Your task to perform on an android device: Open Google Chrome and click the shortcut for Amazon.com Image 0: 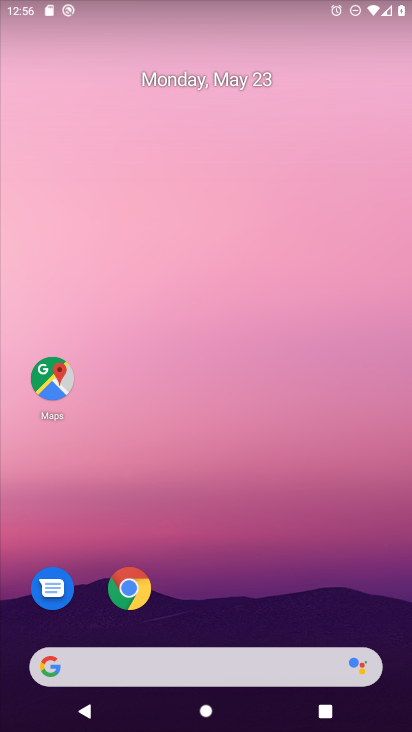
Step 0: drag from (244, 690) to (250, 136)
Your task to perform on an android device: Open Google Chrome and click the shortcut for Amazon.com Image 1: 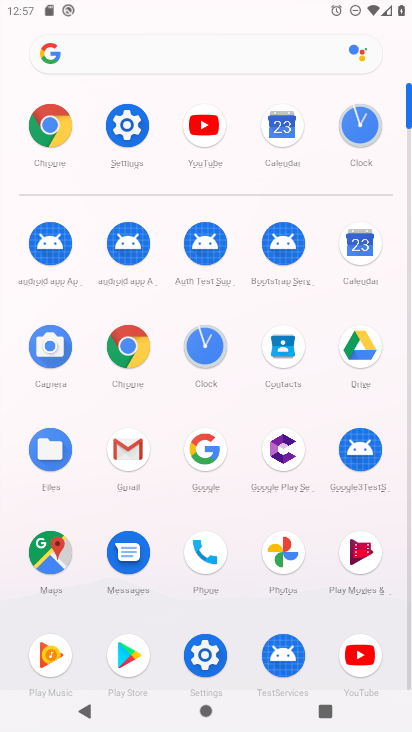
Step 1: click (137, 340)
Your task to perform on an android device: Open Google Chrome and click the shortcut for Amazon.com Image 2: 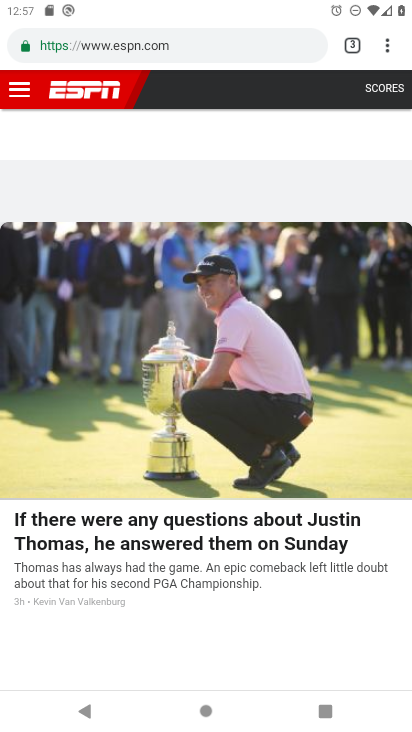
Step 2: click (354, 39)
Your task to perform on an android device: Open Google Chrome and click the shortcut for Amazon.com Image 3: 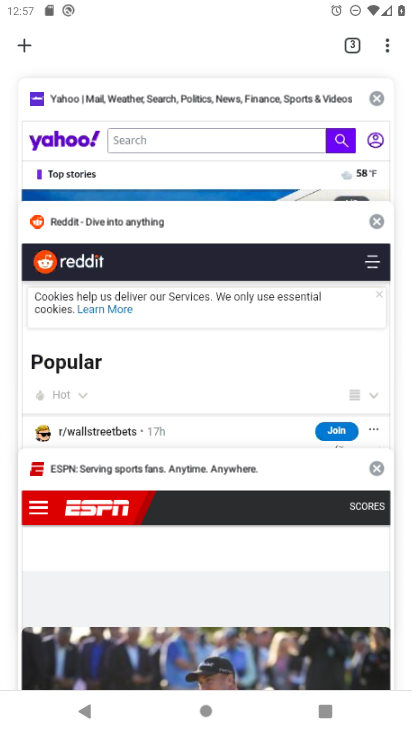
Step 3: click (22, 45)
Your task to perform on an android device: Open Google Chrome and click the shortcut for Amazon.com Image 4: 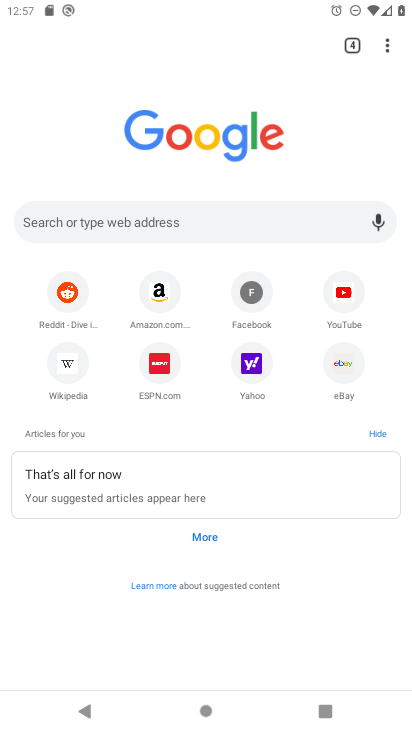
Step 4: click (160, 300)
Your task to perform on an android device: Open Google Chrome and click the shortcut for Amazon.com Image 5: 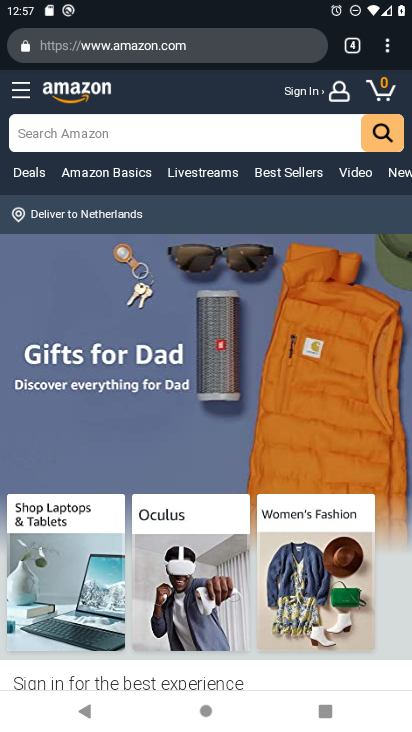
Step 5: click (381, 56)
Your task to perform on an android device: Open Google Chrome and click the shortcut for Amazon.com Image 6: 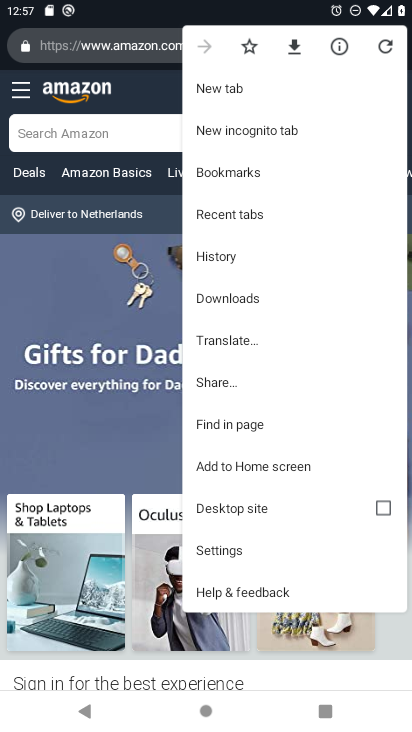
Step 6: click (276, 468)
Your task to perform on an android device: Open Google Chrome and click the shortcut for Amazon.com Image 7: 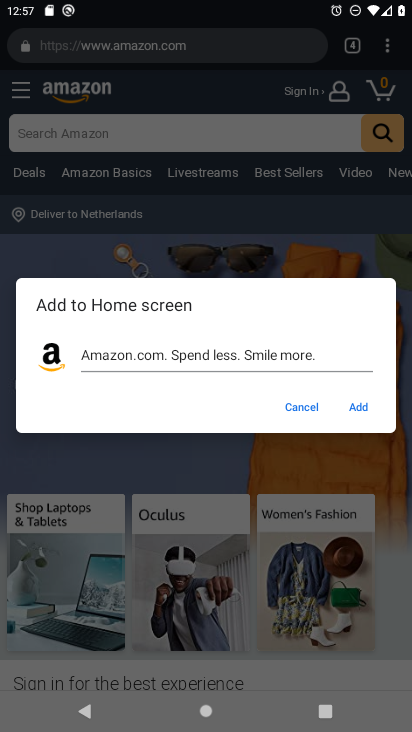
Step 7: click (369, 407)
Your task to perform on an android device: Open Google Chrome and click the shortcut for Amazon.com Image 8: 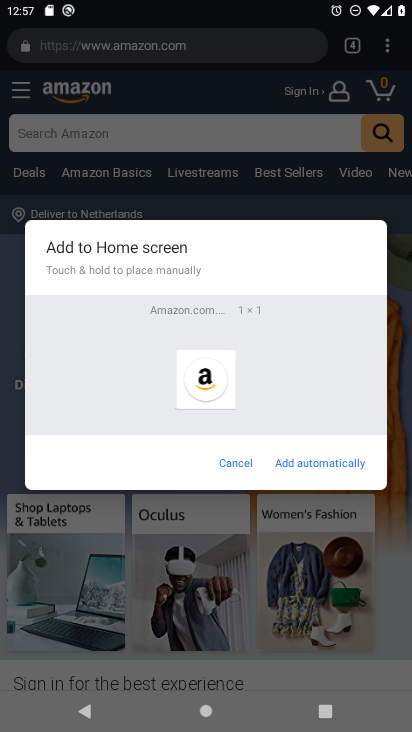
Step 8: click (328, 464)
Your task to perform on an android device: Open Google Chrome and click the shortcut for Amazon.com Image 9: 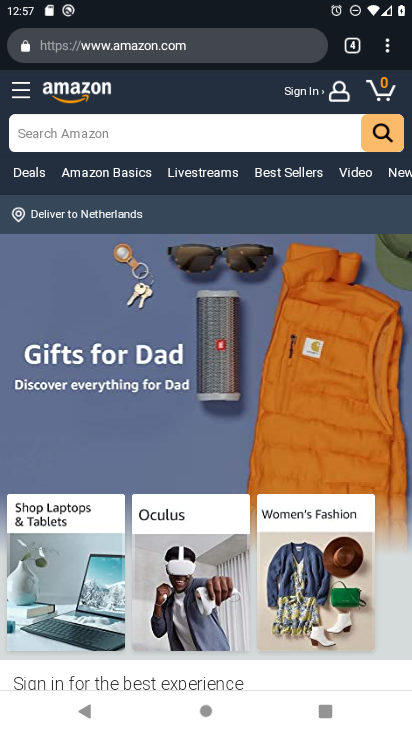
Step 9: task complete